Your task to perform on an android device: set the timer Image 0: 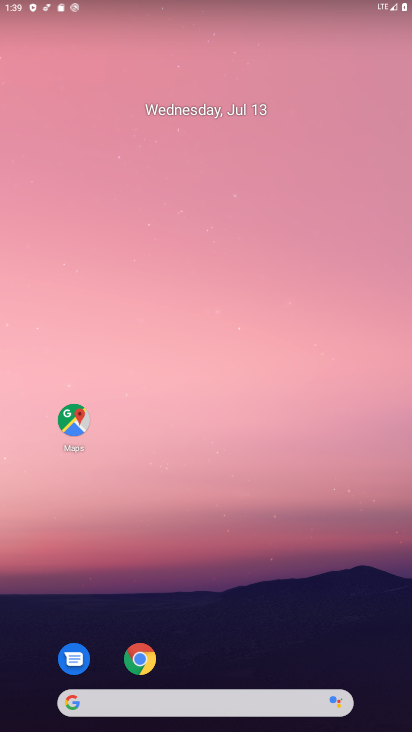
Step 0: drag from (370, 694) to (342, 169)
Your task to perform on an android device: set the timer Image 1: 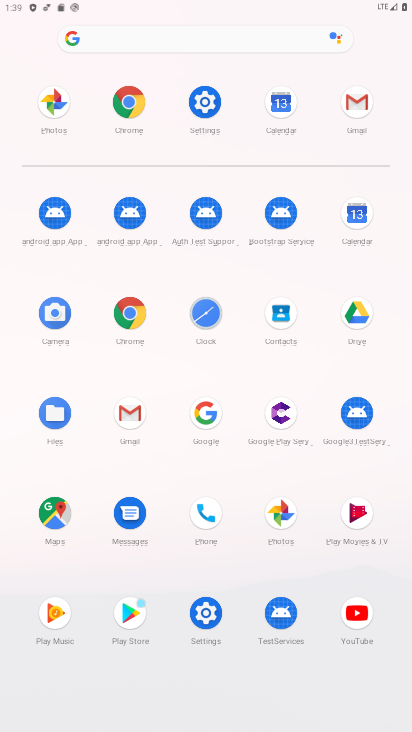
Step 1: click (205, 314)
Your task to perform on an android device: set the timer Image 2: 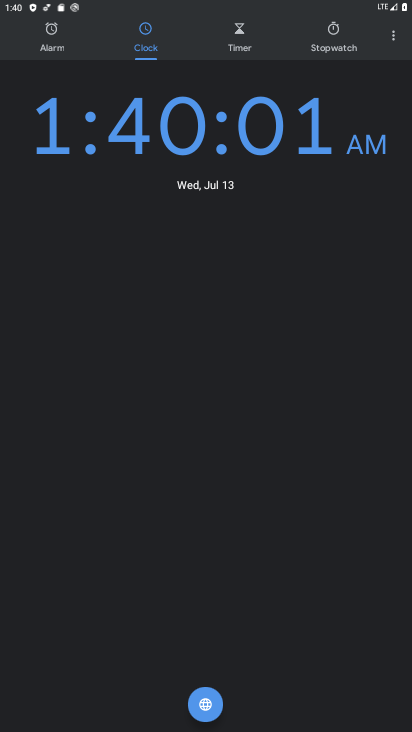
Step 2: click (232, 39)
Your task to perform on an android device: set the timer Image 3: 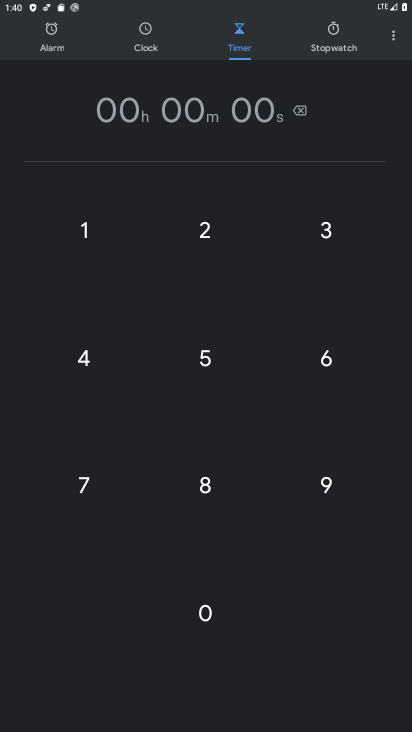
Step 3: task complete